Your task to perform on an android device: open wifi settings Image 0: 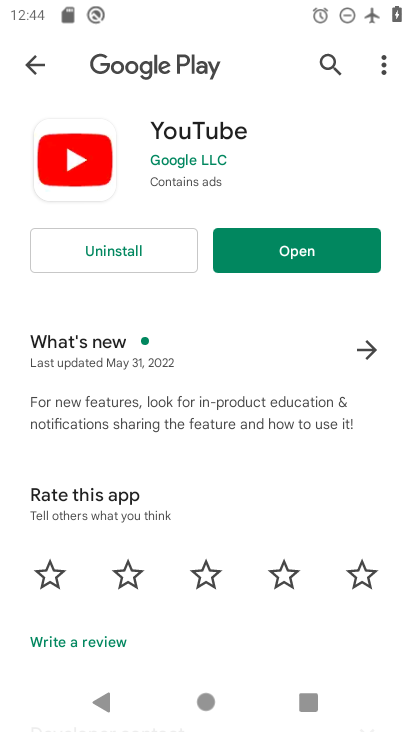
Step 0: press home button
Your task to perform on an android device: open wifi settings Image 1: 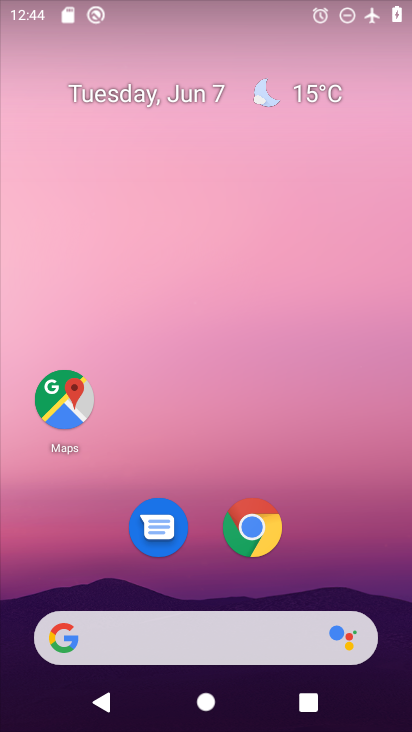
Step 1: drag from (370, 557) to (322, 108)
Your task to perform on an android device: open wifi settings Image 2: 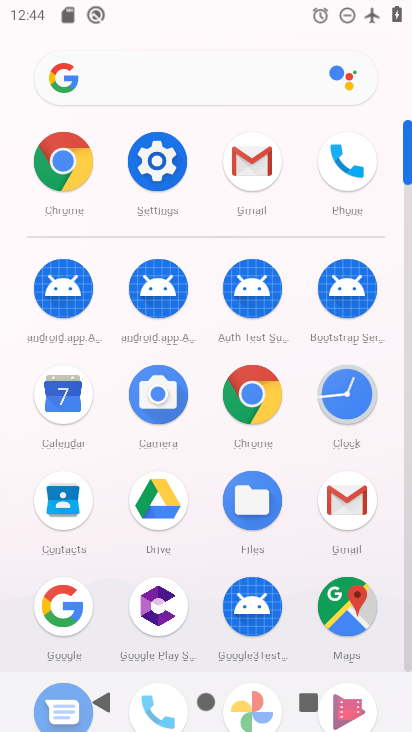
Step 2: drag from (287, 562) to (312, 243)
Your task to perform on an android device: open wifi settings Image 3: 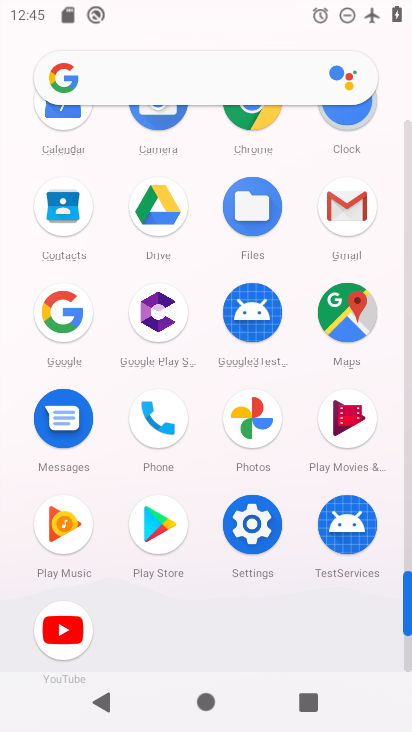
Step 3: click (235, 551)
Your task to perform on an android device: open wifi settings Image 4: 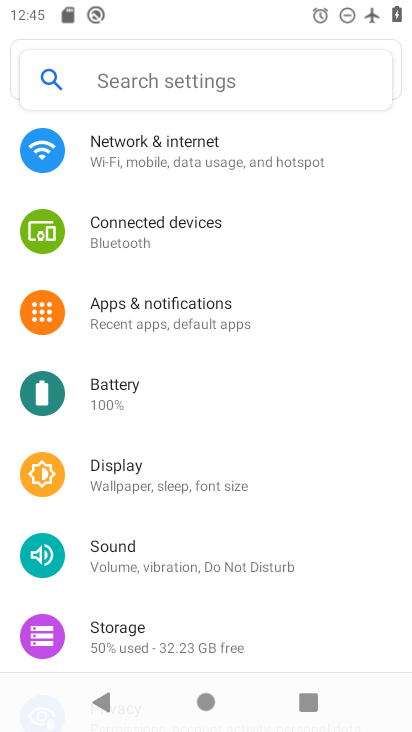
Step 4: click (261, 156)
Your task to perform on an android device: open wifi settings Image 5: 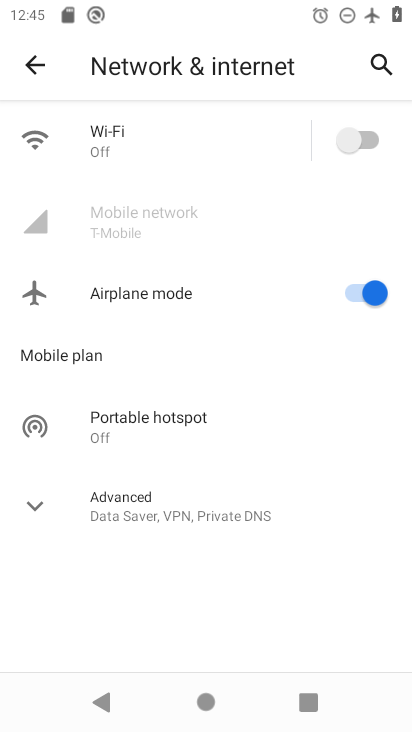
Step 5: click (110, 139)
Your task to perform on an android device: open wifi settings Image 6: 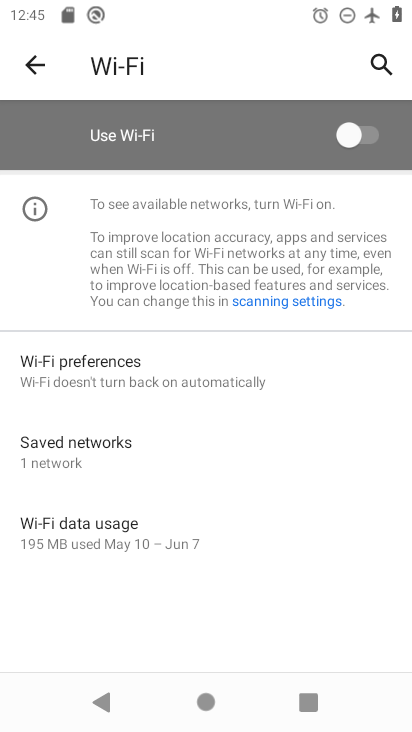
Step 6: task complete